Your task to perform on an android device: turn on the 12-hour format for clock Image 0: 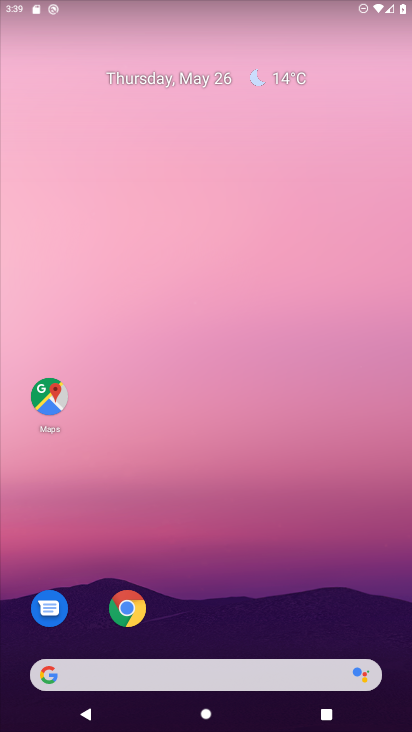
Step 0: drag from (285, 95) to (330, 135)
Your task to perform on an android device: turn on the 12-hour format for clock Image 1: 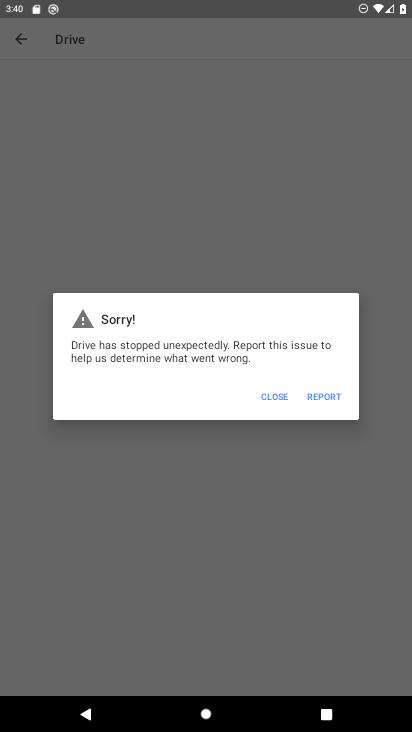
Step 1: press home button
Your task to perform on an android device: turn on the 12-hour format for clock Image 2: 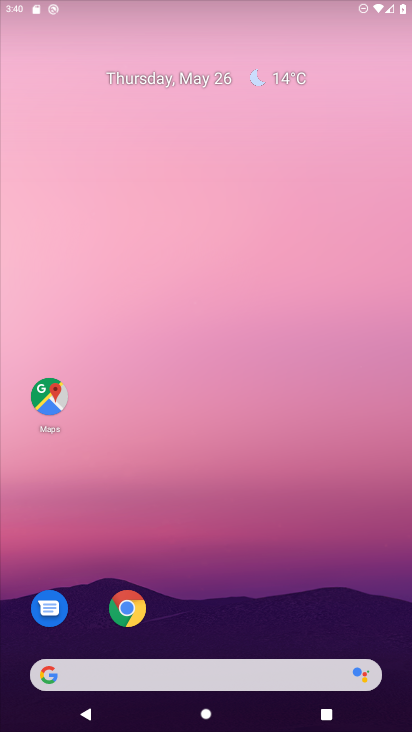
Step 2: drag from (346, 604) to (354, 110)
Your task to perform on an android device: turn on the 12-hour format for clock Image 3: 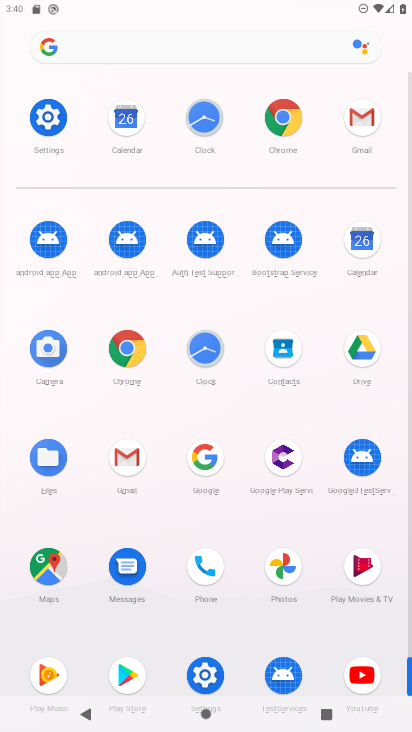
Step 3: click (225, 113)
Your task to perform on an android device: turn on the 12-hour format for clock Image 4: 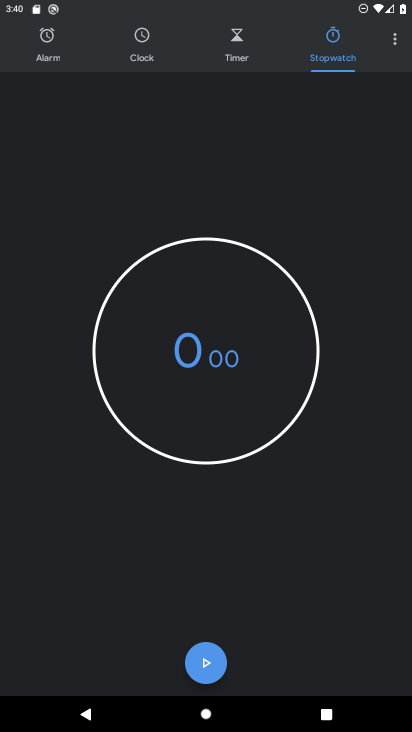
Step 4: click (392, 45)
Your task to perform on an android device: turn on the 12-hour format for clock Image 5: 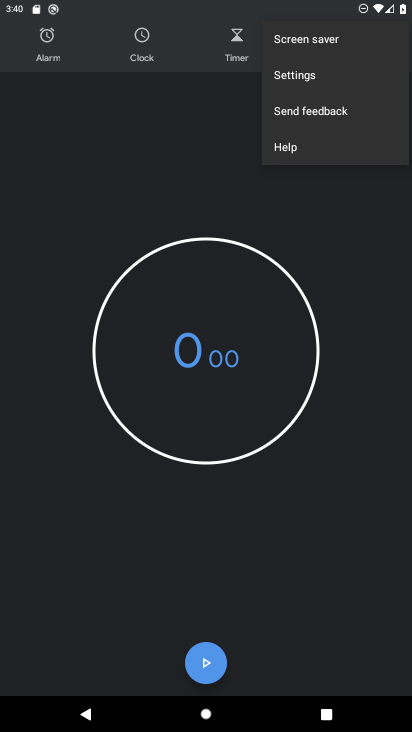
Step 5: click (295, 77)
Your task to perform on an android device: turn on the 12-hour format for clock Image 6: 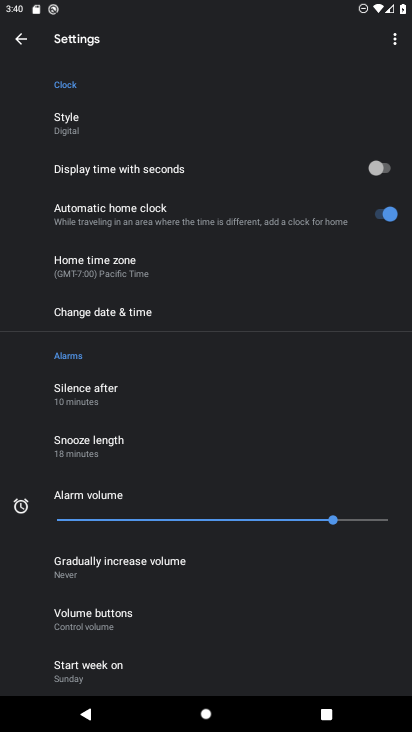
Step 6: click (125, 316)
Your task to perform on an android device: turn on the 12-hour format for clock Image 7: 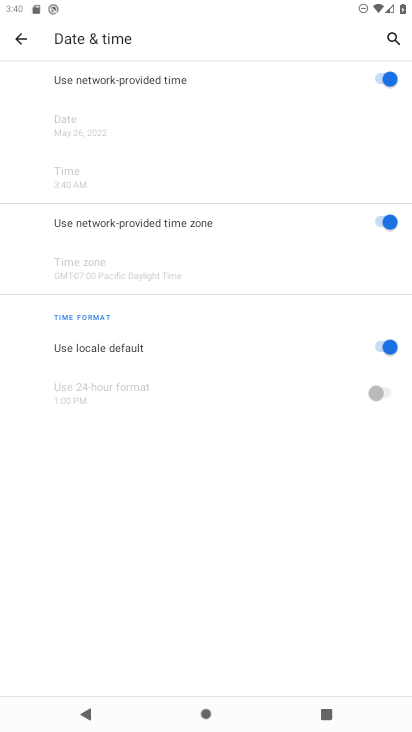
Step 7: task complete